Your task to perform on an android device: change notifications settings Image 0: 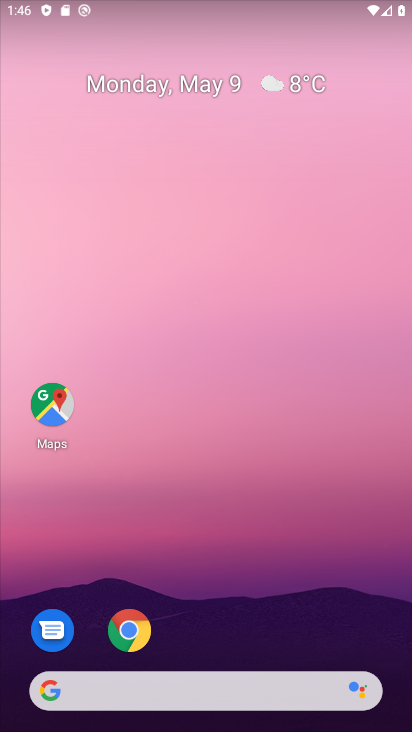
Step 0: drag from (218, 618) to (291, 66)
Your task to perform on an android device: change notifications settings Image 1: 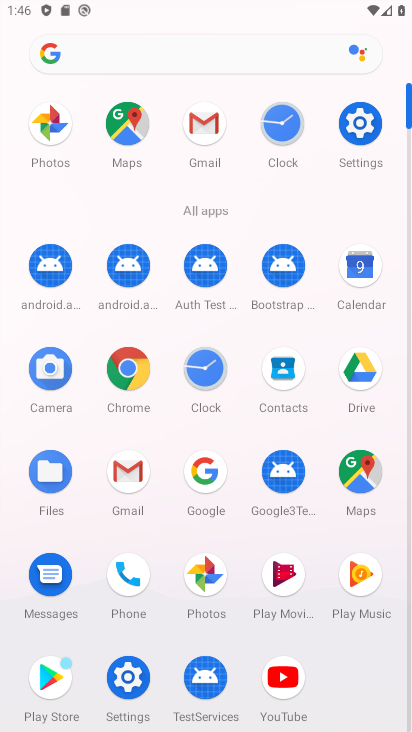
Step 1: click (353, 115)
Your task to perform on an android device: change notifications settings Image 2: 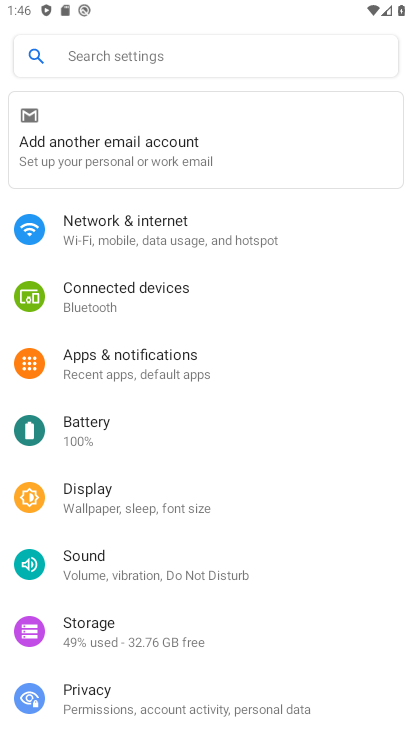
Step 2: click (129, 358)
Your task to perform on an android device: change notifications settings Image 3: 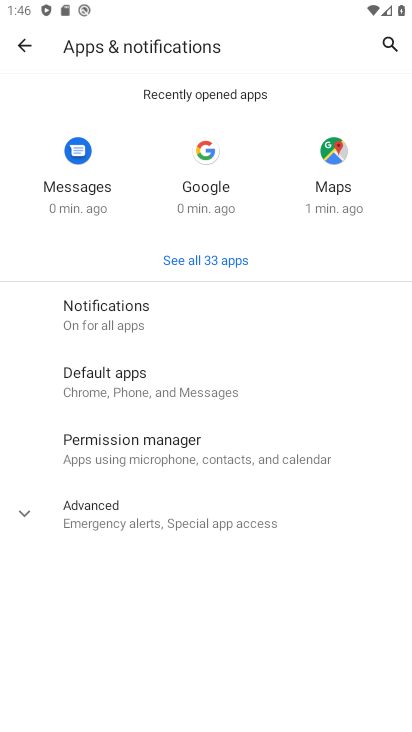
Step 3: click (169, 313)
Your task to perform on an android device: change notifications settings Image 4: 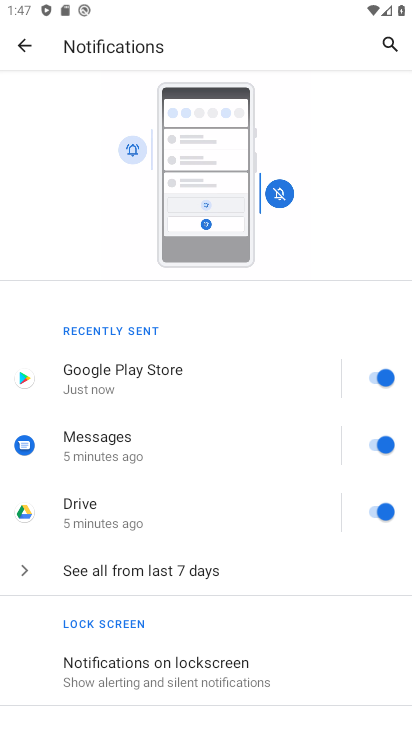
Step 4: drag from (192, 633) to (274, 154)
Your task to perform on an android device: change notifications settings Image 5: 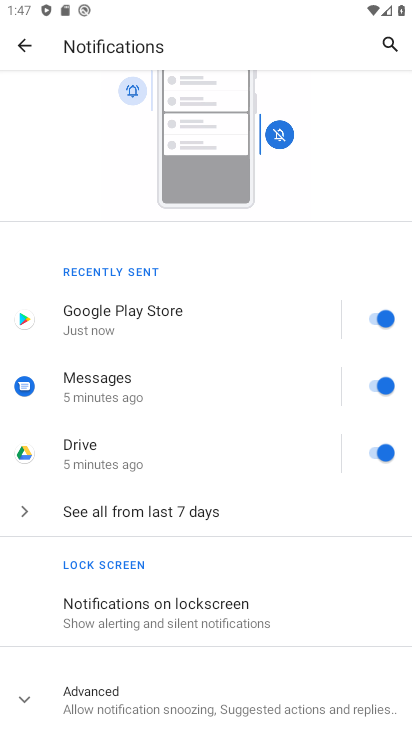
Step 5: drag from (191, 650) to (256, 290)
Your task to perform on an android device: change notifications settings Image 6: 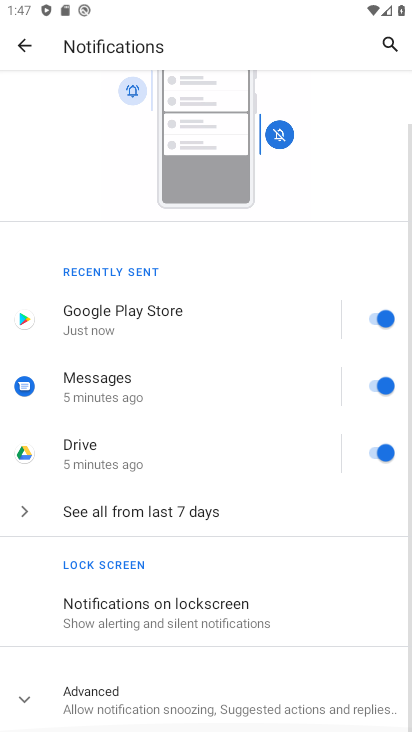
Step 6: click (159, 693)
Your task to perform on an android device: change notifications settings Image 7: 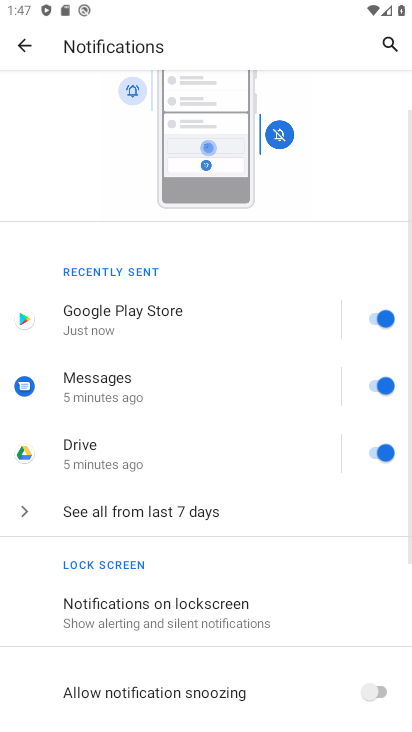
Step 7: click (383, 685)
Your task to perform on an android device: change notifications settings Image 8: 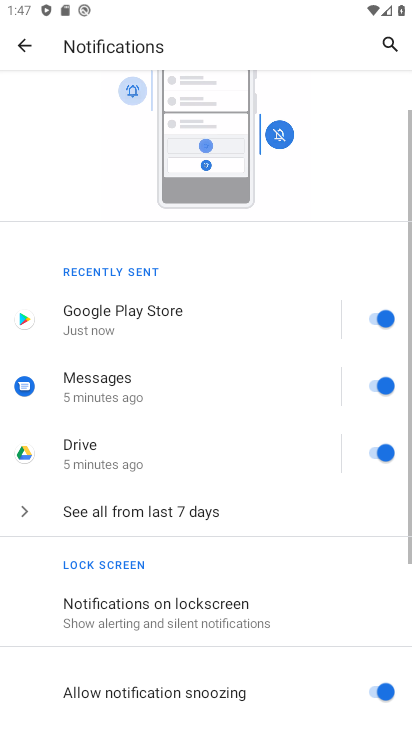
Step 8: task complete